Your task to perform on an android device: Open ESPN.com Image 0: 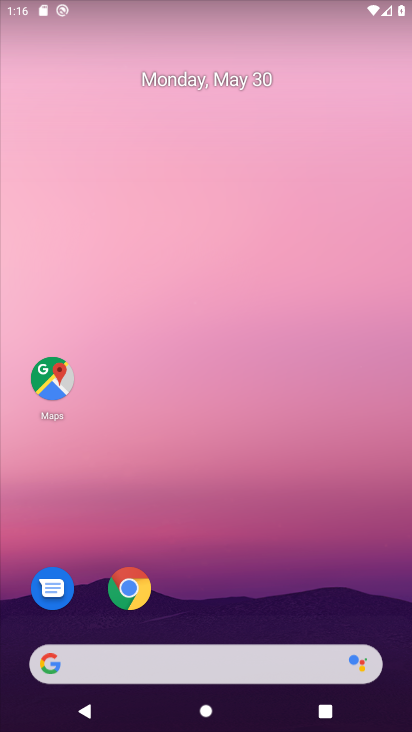
Step 0: drag from (206, 611) to (224, 39)
Your task to perform on an android device: Open ESPN.com Image 1: 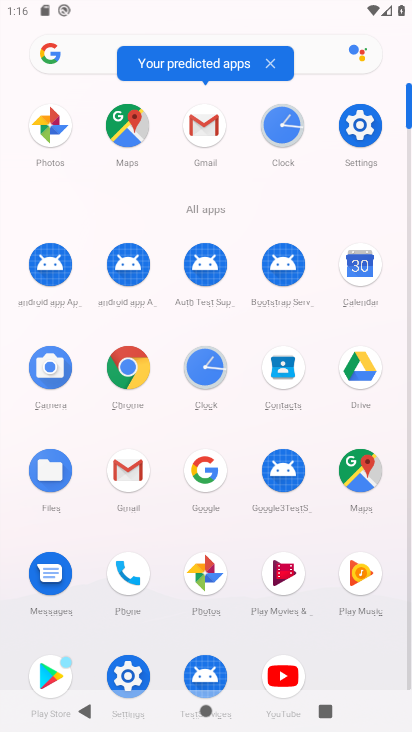
Step 1: click (128, 372)
Your task to perform on an android device: Open ESPN.com Image 2: 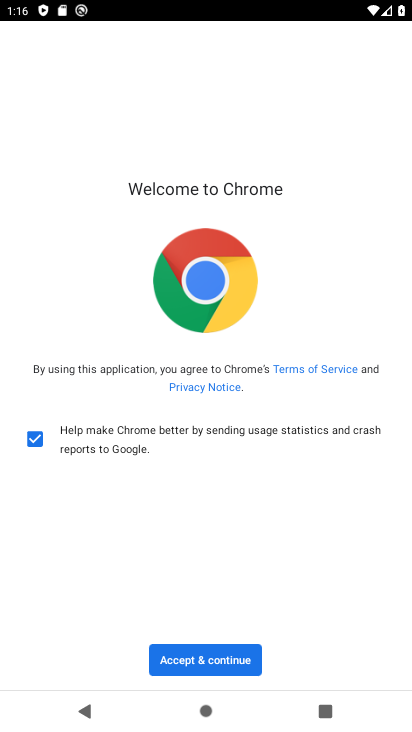
Step 2: click (194, 662)
Your task to perform on an android device: Open ESPN.com Image 3: 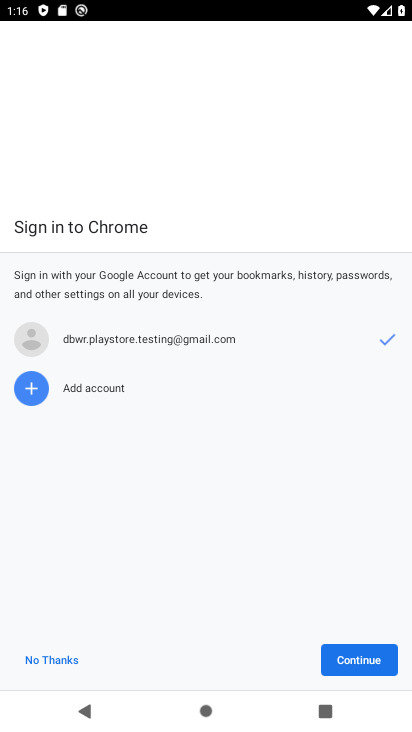
Step 3: click (346, 658)
Your task to perform on an android device: Open ESPN.com Image 4: 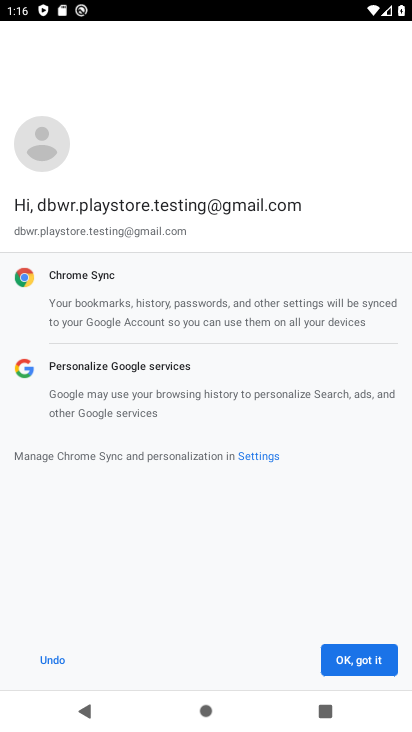
Step 4: click (346, 658)
Your task to perform on an android device: Open ESPN.com Image 5: 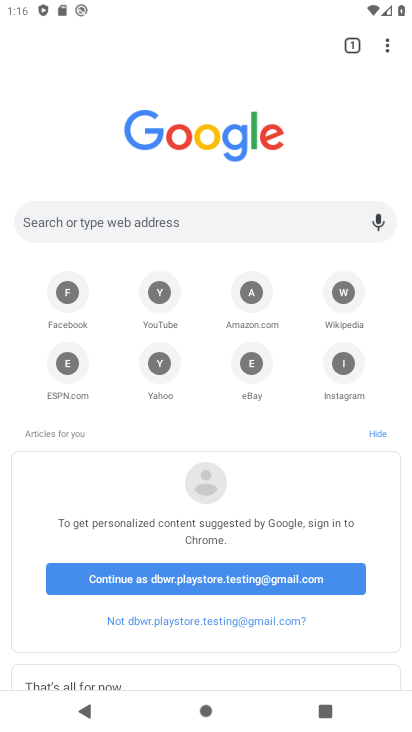
Step 5: click (158, 43)
Your task to perform on an android device: Open ESPN.com Image 6: 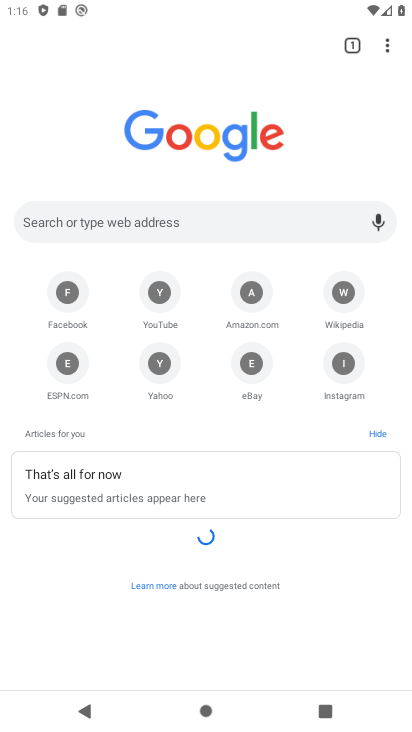
Step 6: click (189, 216)
Your task to perform on an android device: Open ESPN.com Image 7: 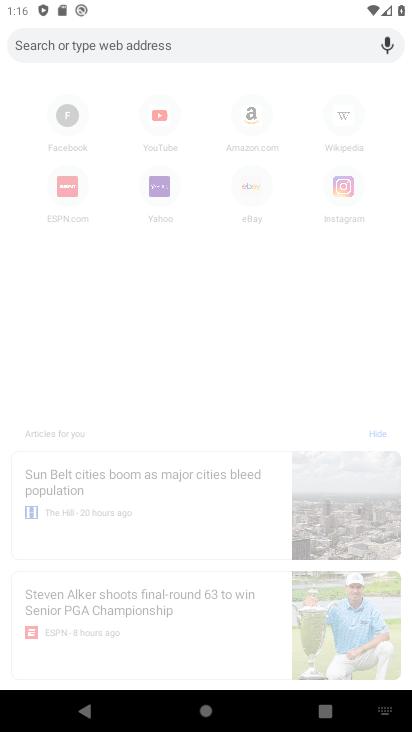
Step 7: click (73, 196)
Your task to perform on an android device: Open ESPN.com Image 8: 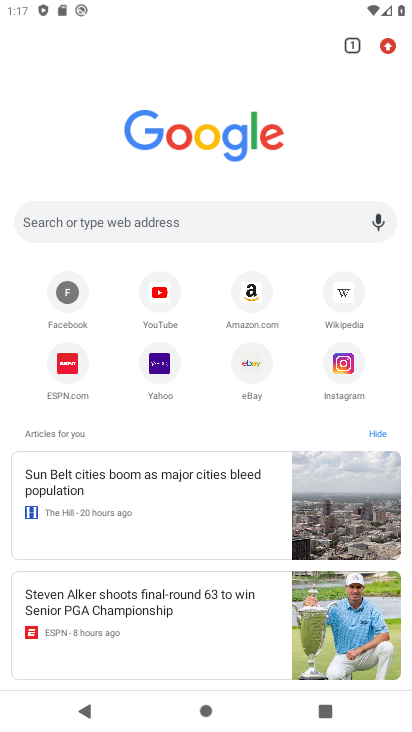
Step 8: click (66, 361)
Your task to perform on an android device: Open ESPN.com Image 9: 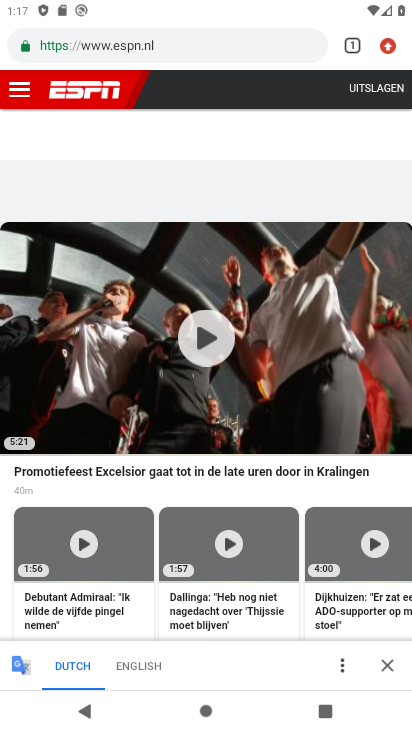
Step 9: task complete